Your task to perform on an android device: turn off translation in the chrome app Image 0: 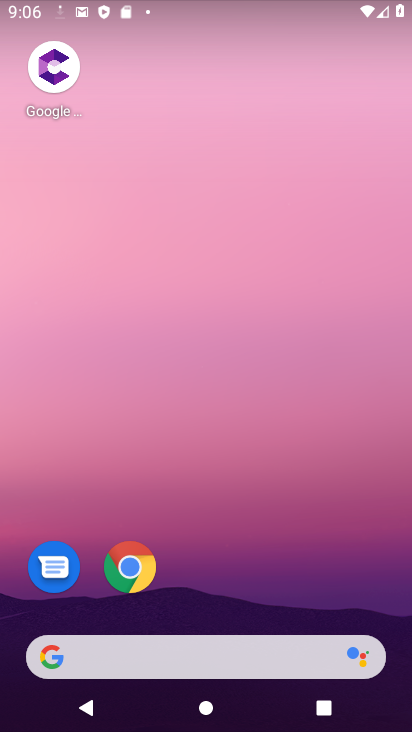
Step 0: click (128, 570)
Your task to perform on an android device: turn off translation in the chrome app Image 1: 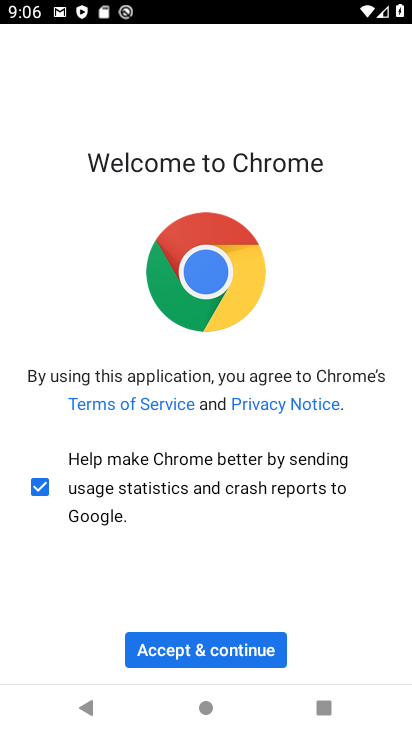
Step 1: click (197, 651)
Your task to perform on an android device: turn off translation in the chrome app Image 2: 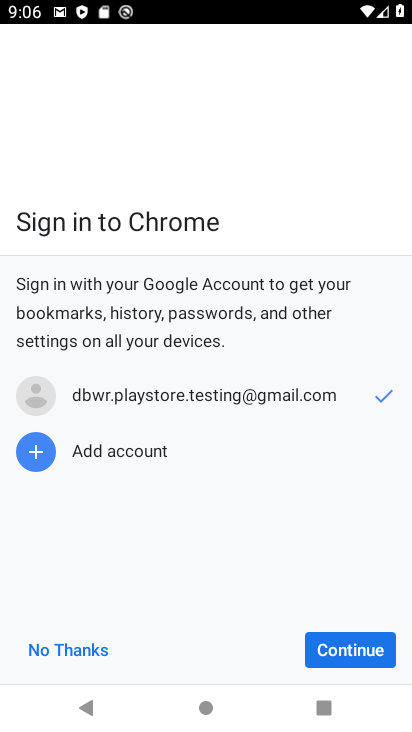
Step 2: click (335, 654)
Your task to perform on an android device: turn off translation in the chrome app Image 3: 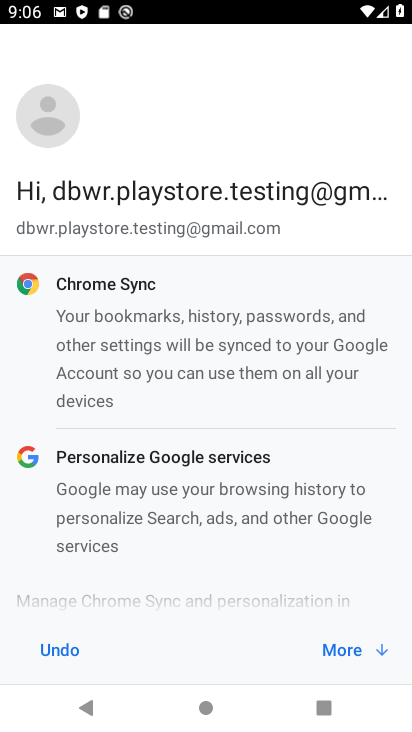
Step 3: click (335, 652)
Your task to perform on an android device: turn off translation in the chrome app Image 4: 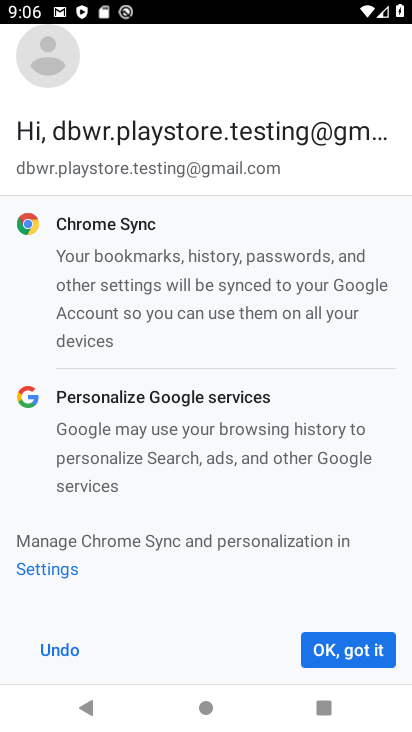
Step 4: click (335, 653)
Your task to perform on an android device: turn off translation in the chrome app Image 5: 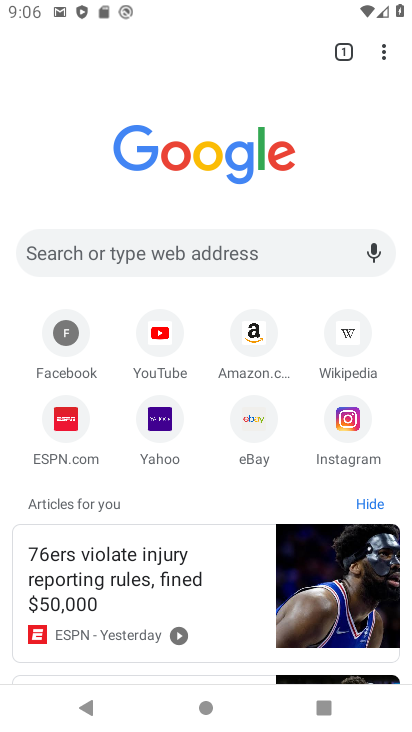
Step 5: click (383, 55)
Your task to perform on an android device: turn off translation in the chrome app Image 6: 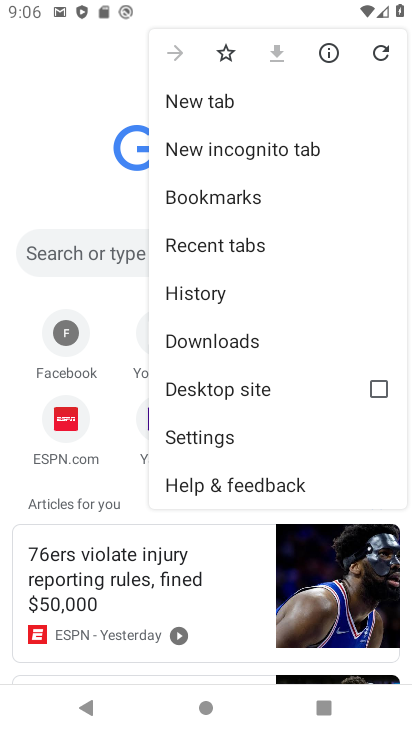
Step 6: click (193, 446)
Your task to perform on an android device: turn off translation in the chrome app Image 7: 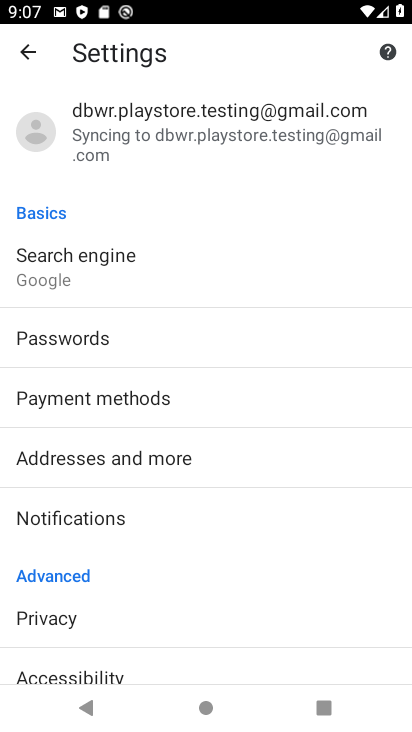
Step 7: drag from (133, 652) to (124, 412)
Your task to perform on an android device: turn off translation in the chrome app Image 8: 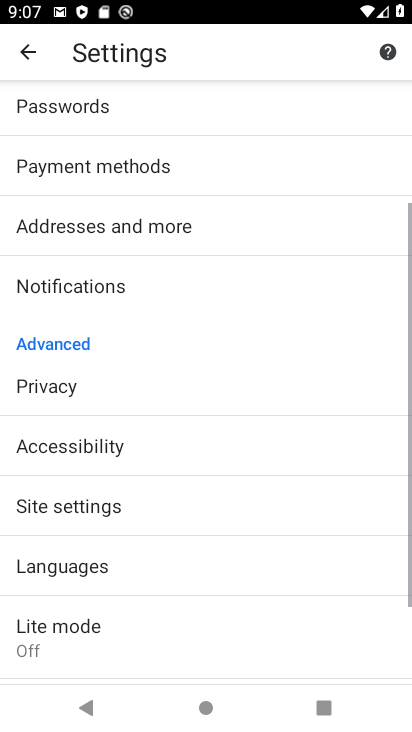
Step 8: click (60, 565)
Your task to perform on an android device: turn off translation in the chrome app Image 9: 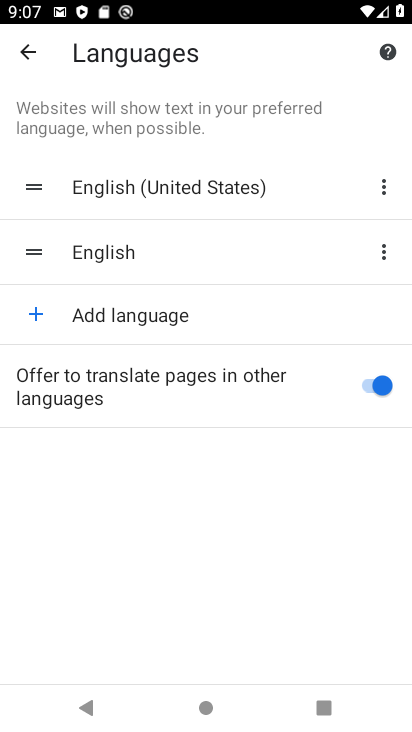
Step 9: click (365, 386)
Your task to perform on an android device: turn off translation in the chrome app Image 10: 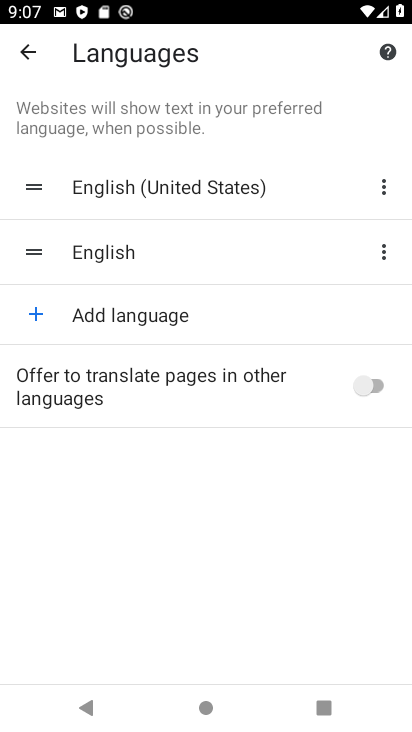
Step 10: task complete